Your task to perform on an android device: turn off location history Image 0: 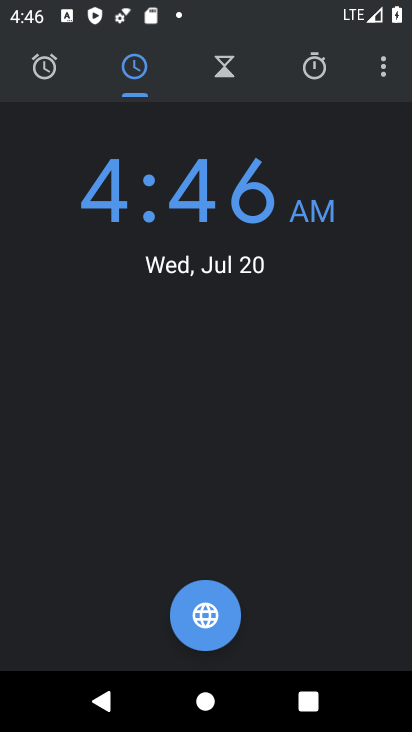
Step 0: press home button
Your task to perform on an android device: turn off location history Image 1: 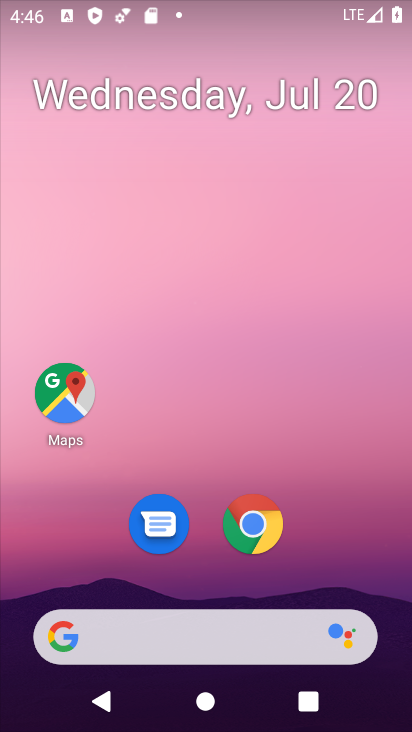
Step 1: drag from (322, 559) to (337, 35)
Your task to perform on an android device: turn off location history Image 2: 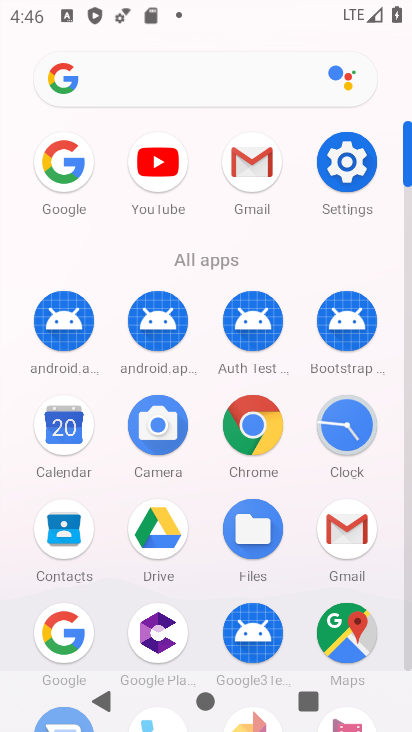
Step 2: click (358, 163)
Your task to perform on an android device: turn off location history Image 3: 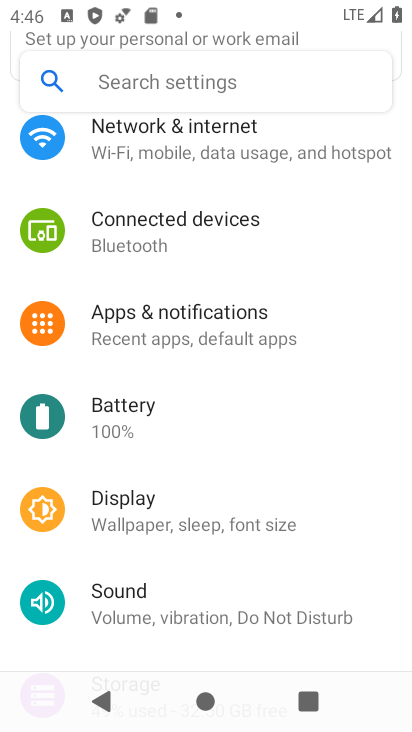
Step 3: drag from (189, 577) to (236, 181)
Your task to perform on an android device: turn off location history Image 4: 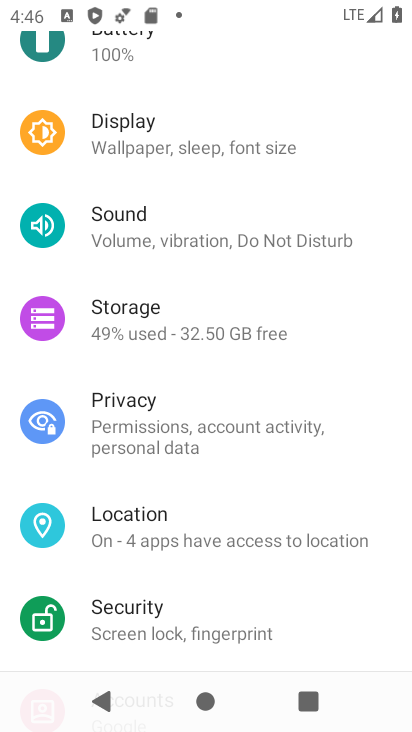
Step 4: click (178, 512)
Your task to perform on an android device: turn off location history Image 5: 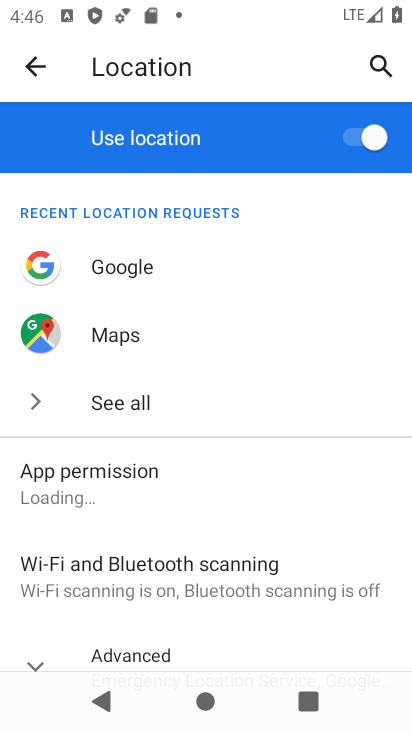
Step 5: drag from (178, 506) to (260, 83)
Your task to perform on an android device: turn off location history Image 6: 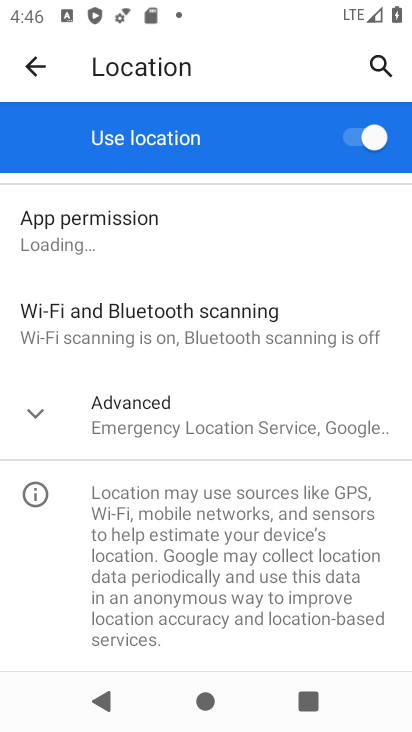
Step 6: click (32, 414)
Your task to perform on an android device: turn off location history Image 7: 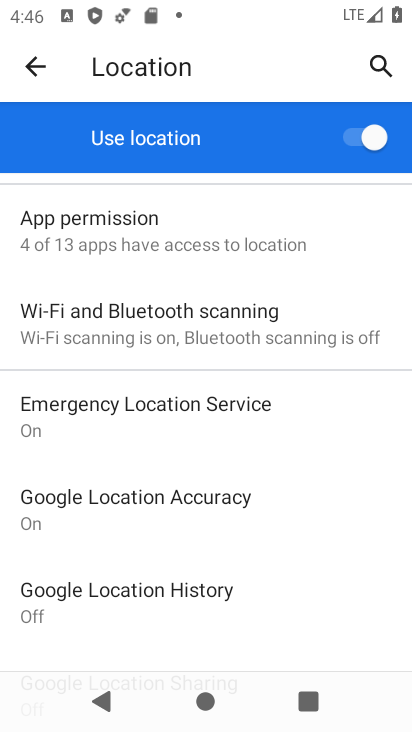
Step 7: click (109, 588)
Your task to perform on an android device: turn off location history Image 8: 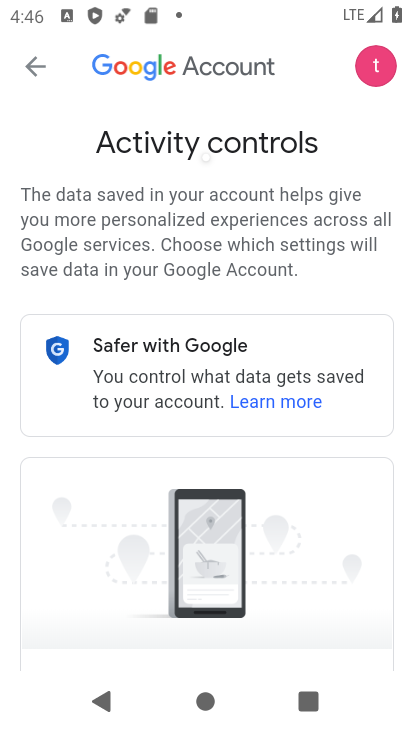
Step 8: task complete